Your task to perform on an android device: Open Wikipedia Image 0: 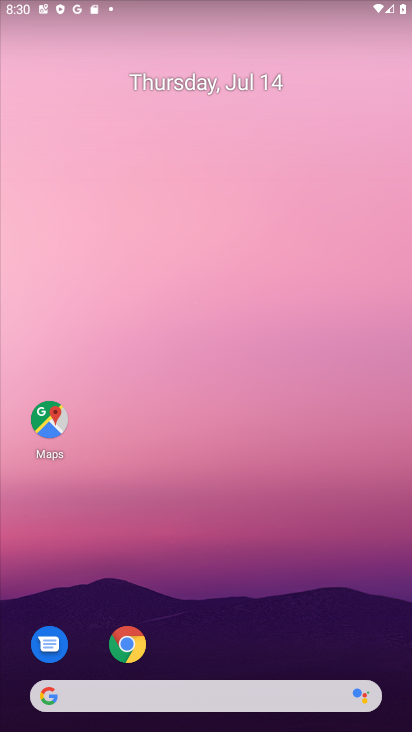
Step 0: drag from (183, 658) to (294, 80)
Your task to perform on an android device: Open Wikipedia Image 1: 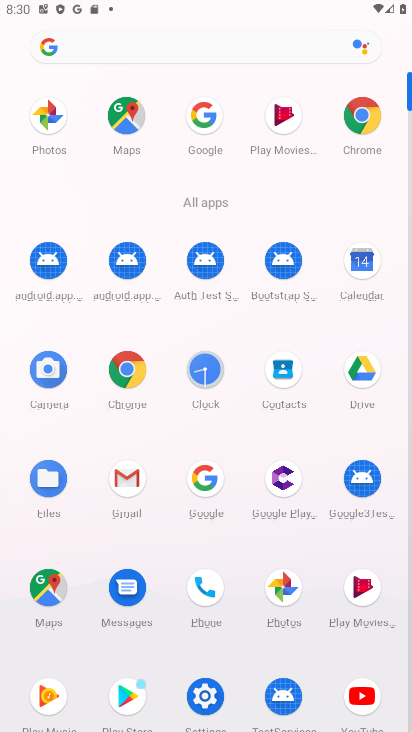
Step 1: click (130, 392)
Your task to perform on an android device: Open Wikipedia Image 2: 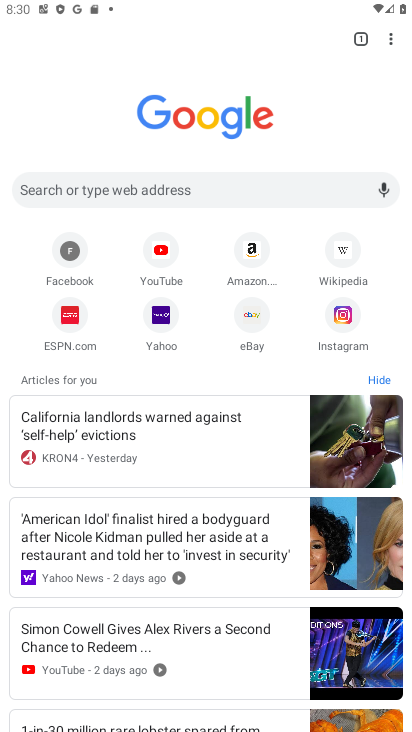
Step 2: click (349, 265)
Your task to perform on an android device: Open Wikipedia Image 3: 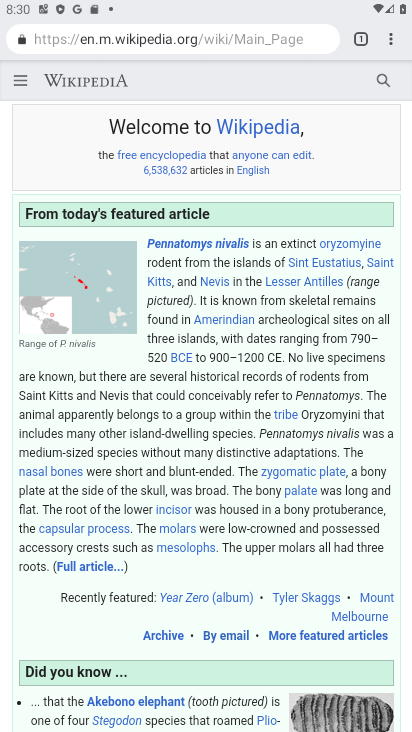
Step 3: task complete